Your task to perform on an android device: Toggle the flashlight Image 0: 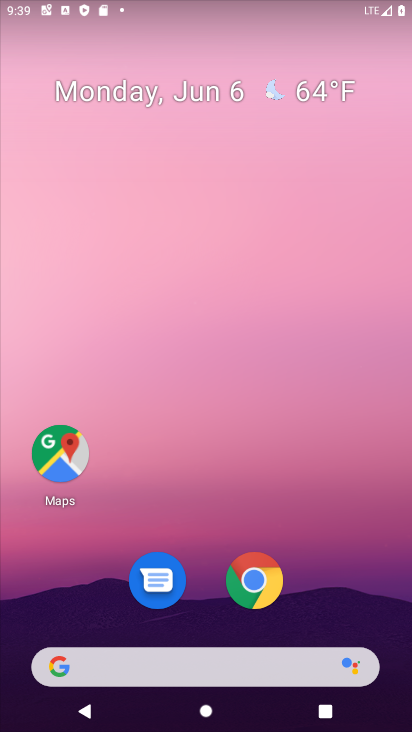
Step 0: drag from (327, 584) to (376, 22)
Your task to perform on an android device: Toggle the flashlight Image 1: 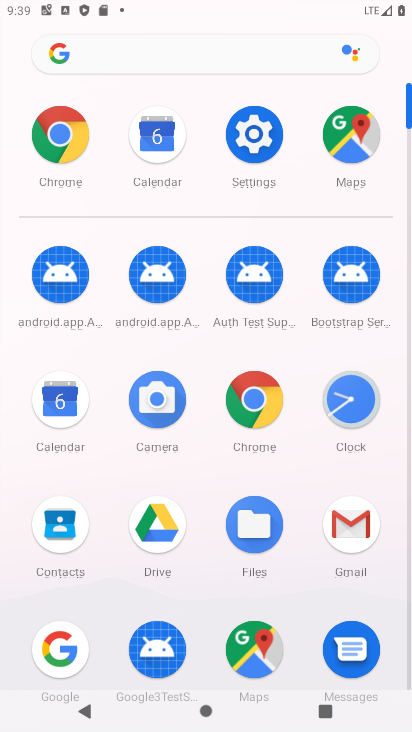
Step 1: click (234, 119)
Your task to perform on an android device: Toggle the flashlight Image 2: 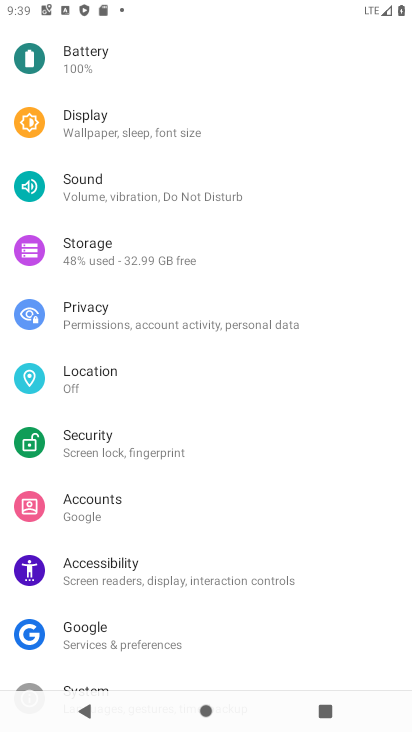
Step 2: task complete